Your task to perform on an android device: Search for sushi restaurants on Maps Image 0: 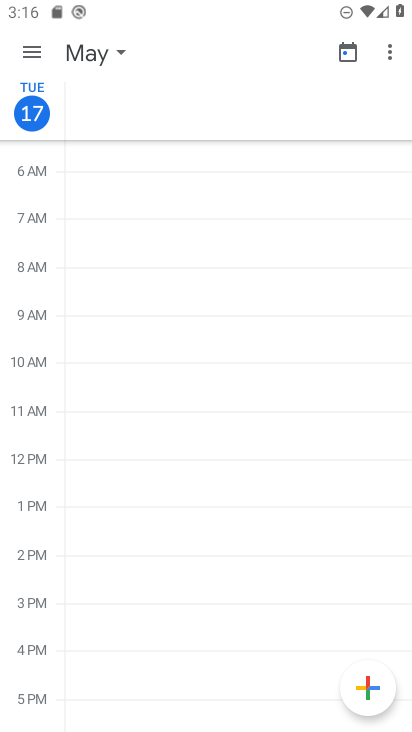
Step 0: press home button
Your task to perform on an android device: Search for sushi restaurants on Maps Image 1: 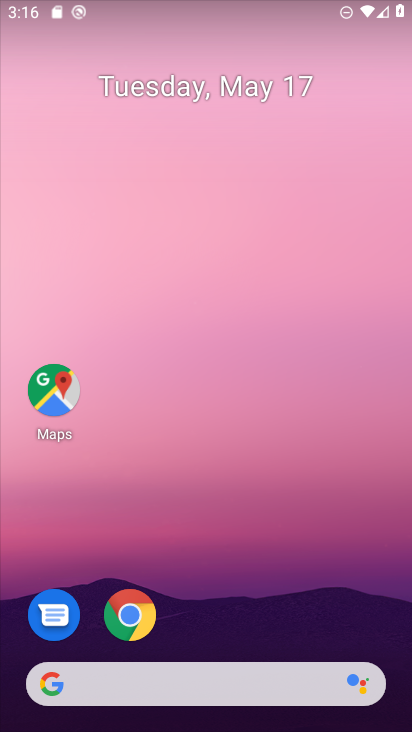
Step 1: drag from (222, 710) to (223, 25)
Your task to perform on an android device: Search for sushi restaurants on Maps Image 2: 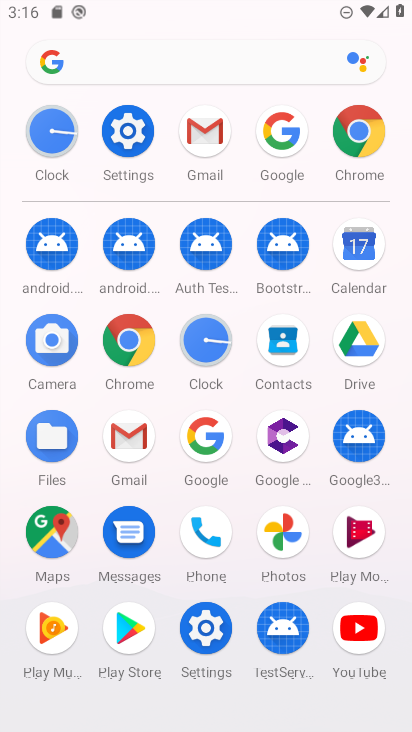
Step 2: click (41, 538)
Your task to perform on an android device: Search for sushi restaurants on Maps Image 3: 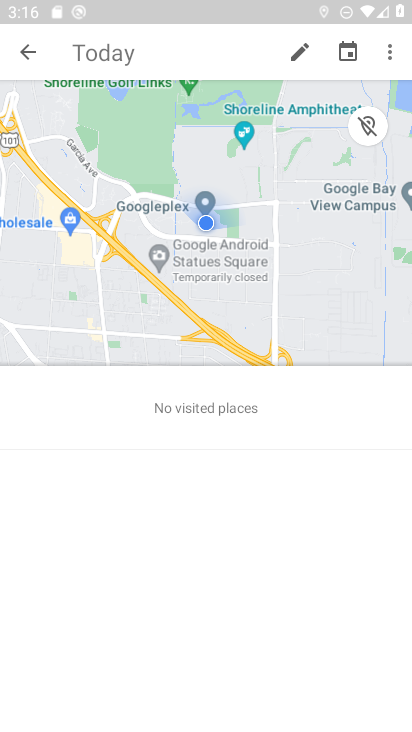
Step 3: click (34, 49)
Your task to perform on an android device: Search for sushi restaurants on Maps Image 4: 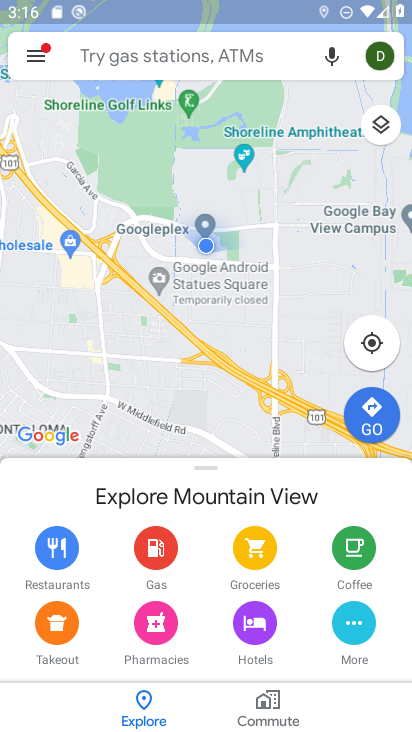
Step 4: click (157, 53)
Your task to perform on an android device: Search for sushi restaurants on Maps Image 5: 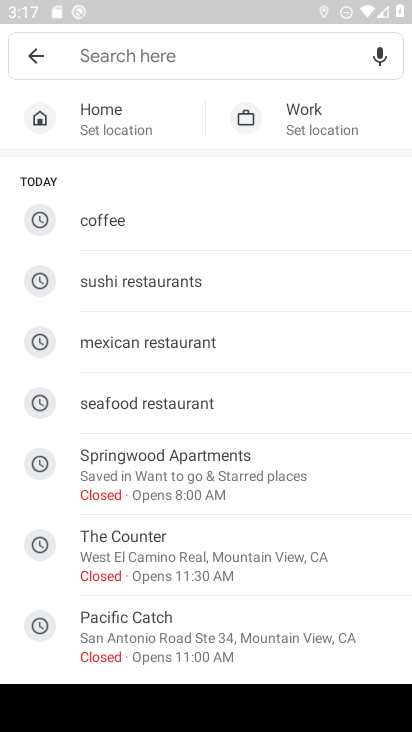
Step 5: type "sushi restaurants"
Your task to perform on an android device: Search for sushi restaurants on Maps Image 6: 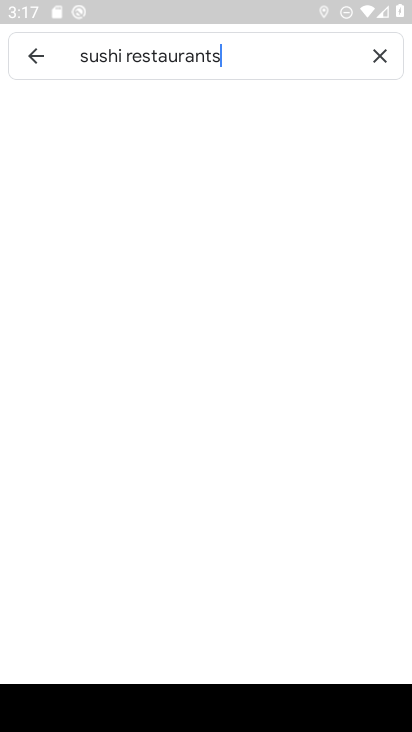
Step 6: type ""
Your task to perform on an android device: Search for sushi restaurants on Maps Image 7: 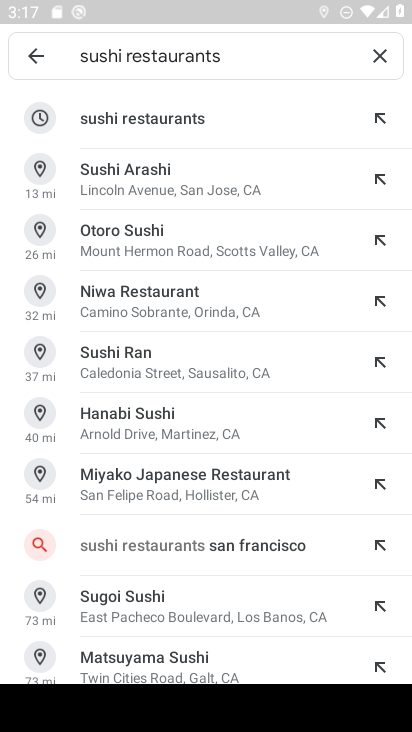
Step 7: click (160, 120)
Your task to perform on an android device: Search for sushi restaurants on Maps Image 8: 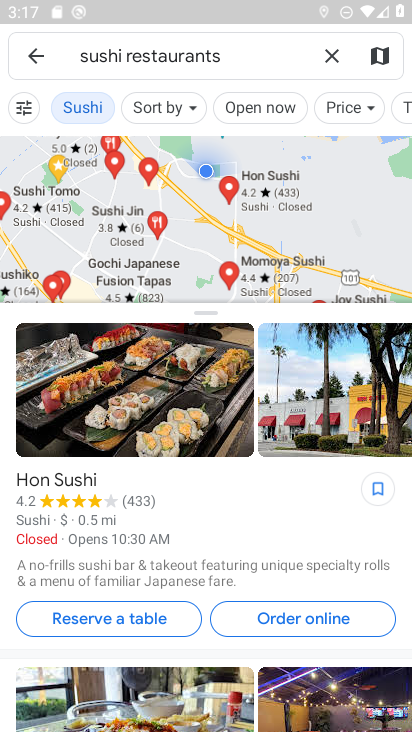
Step 8: task complete